Your task to perform on an android device: toggle javascript in the chrome app Image 0: 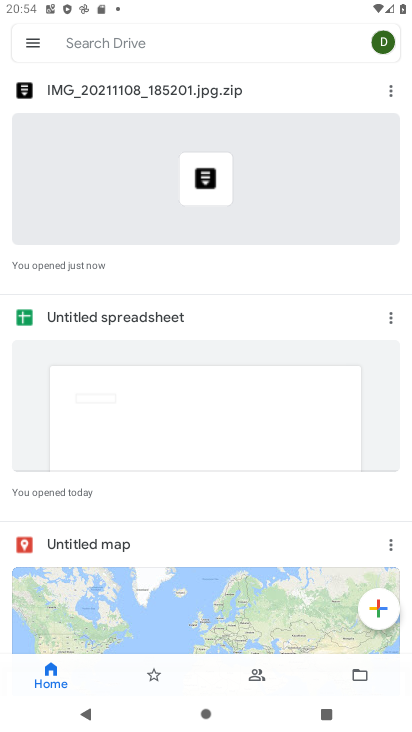
Step 0: press home button
Your task to perform on an android device: toggle javascript in the chrome app Image 1: 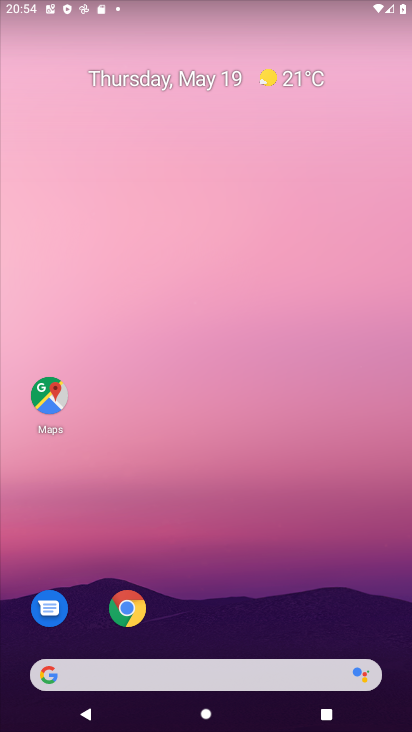
Step 1: click (122, 610)
Your task to perform on an android device: toggle javascript in the chrome app Image 2: 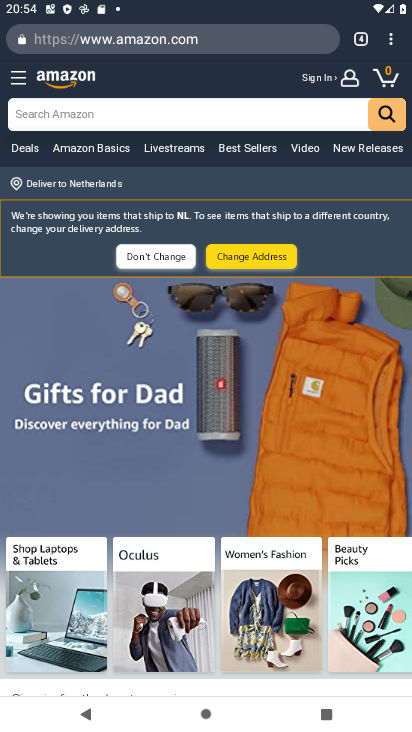
Step 2: click (17, 74)
Your task to perform on an android device: toggle javascript in the chrome app Image 3: 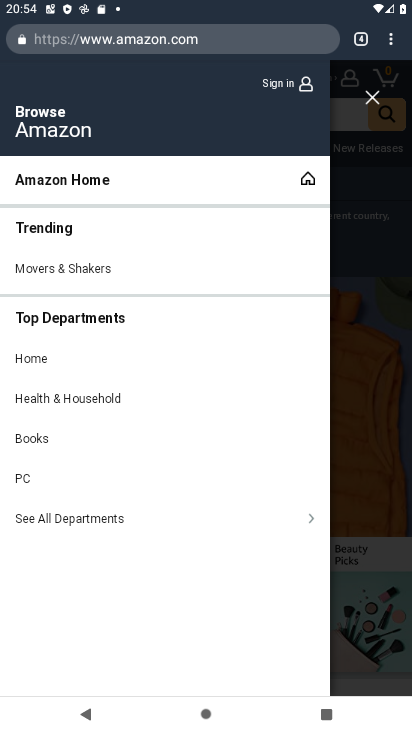
Step 3: click (392, 211)
Your task to perform on an android device: toggle javascript in the chrome app Image 4: 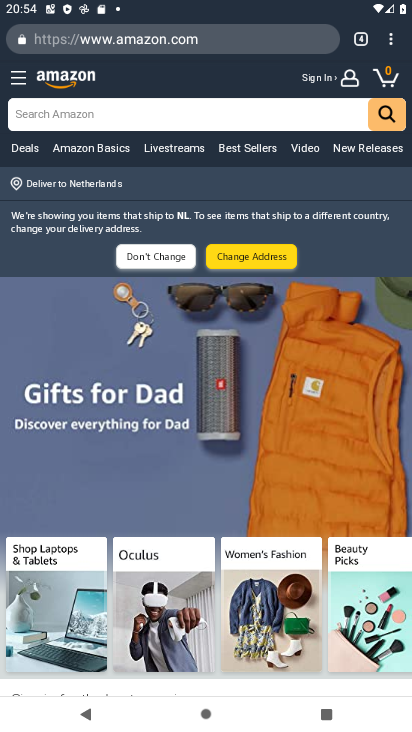
Step 4: click (392, 39)
Your task to perform on an android device: toggle javascript in the chrome app Image 5: 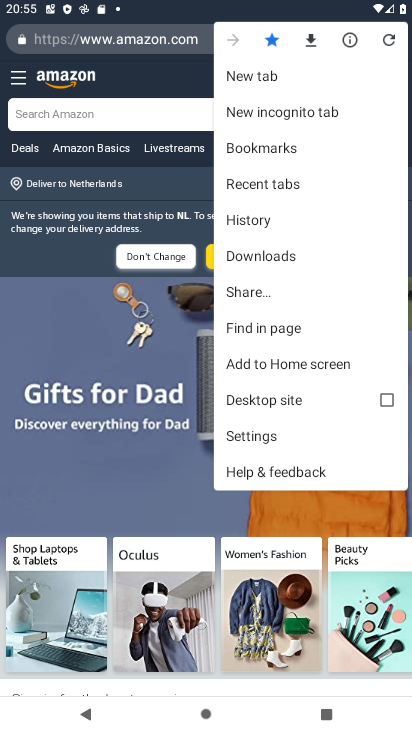
Step 5: click (253, 439)
Your task to perform on an android device: toggle javascript in the chrome app Image 6: 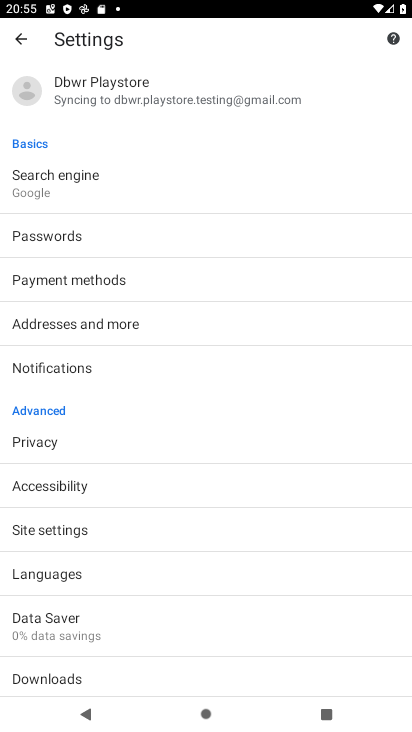
Step 6: click (65, 529)
Your task to perform on an android device: toggle javascript in the chrome app Image 7: 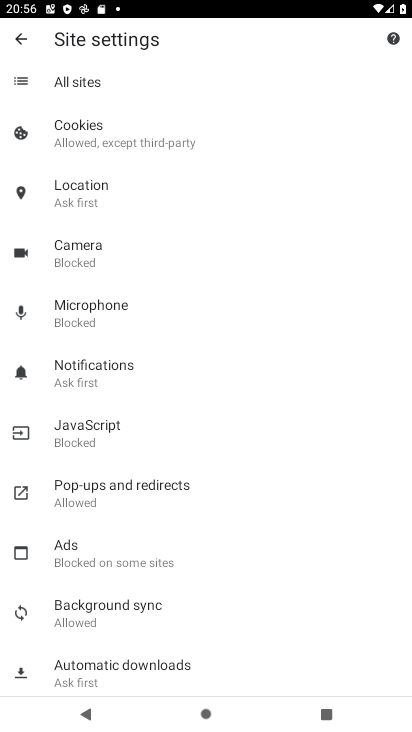
Step 7: click (90, 428)
Your task to perform on an android device: toggle javascript in the chrome app Image 8: 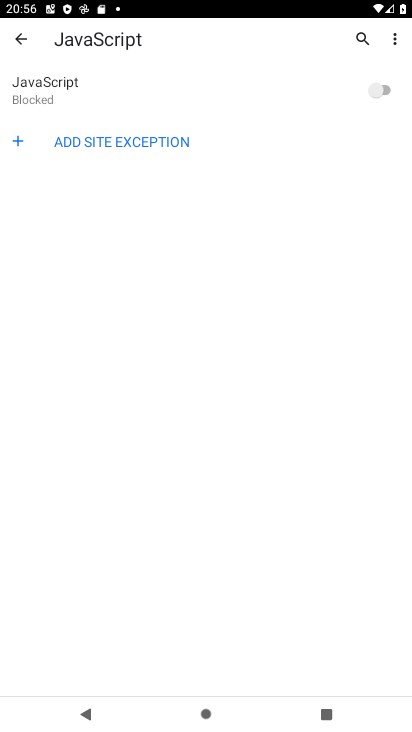
Step 8: click (368, 92)
Your task to perform on an android device: toggle javascript in the chrome app Image 9: 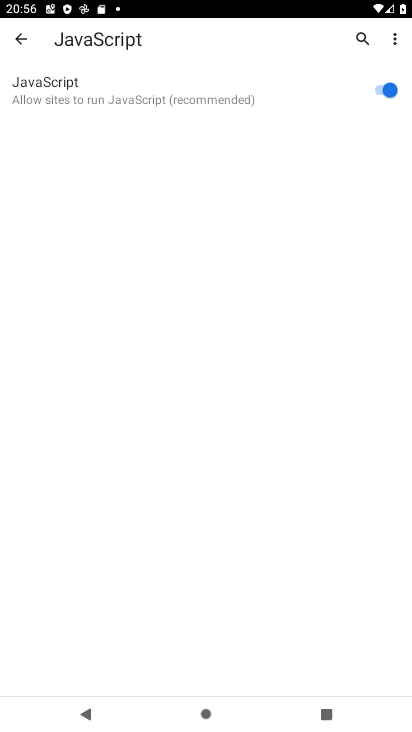
Step 9: task complete